Your task to perform on an android device: make emails show in primary in the gmail app Image 0: 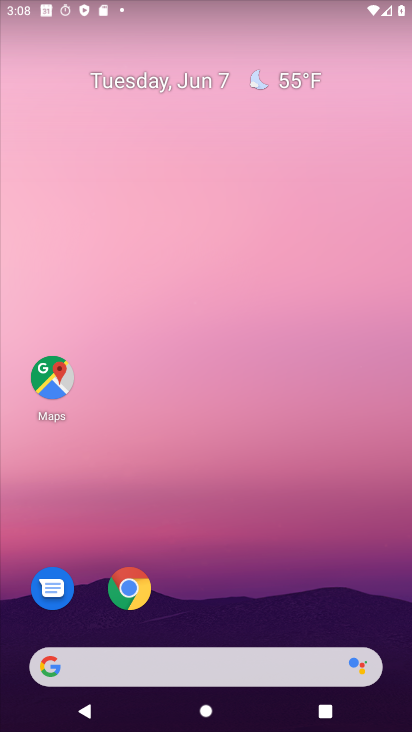
Step 0: drag from (216, 634) to (376, 16)
Your task to perform on an android device: make emails show in primary in the gmail app Image 1: 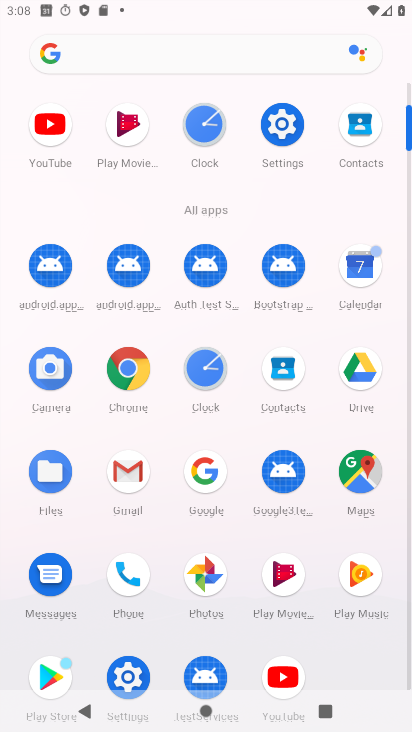
Step 1: click (131, 470)
Your task to perform on an android device: make emails show in primary in the gmail app Image 2: 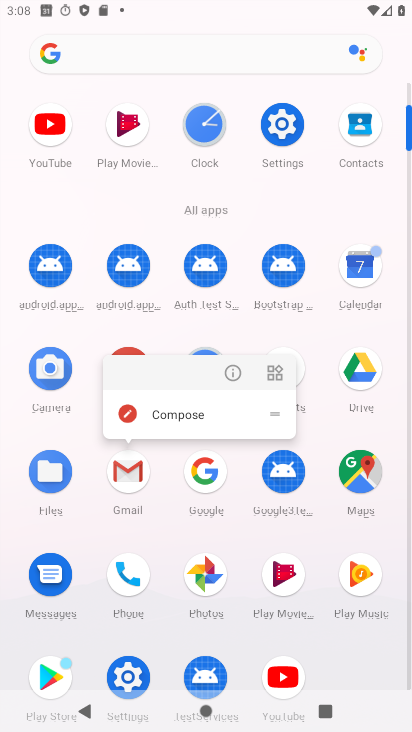
Step 2: click (75, 339)
Your task to perform on an android device: make emails show in primary in the gmail app Image 3: 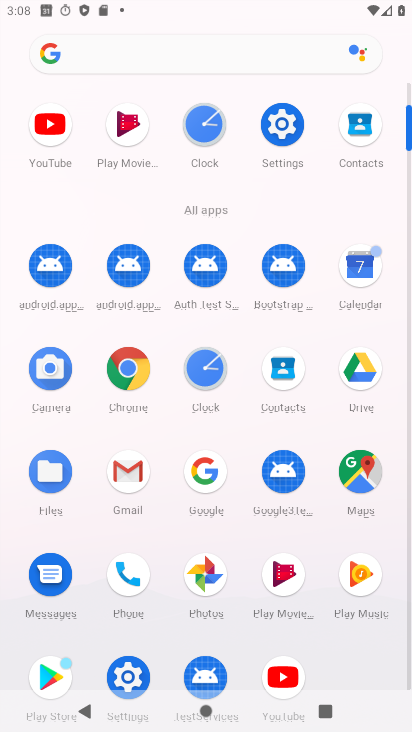
Step 3: click (128, 460)
Your task to perform on an android device: make emails show in primary in the gmail app Image 4: 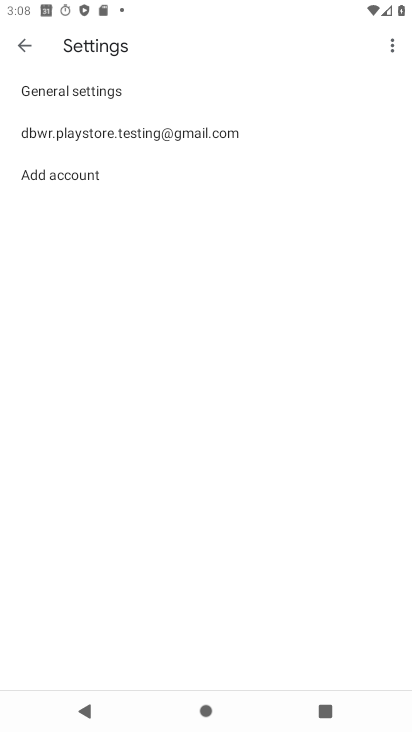
Step 4: click (108, 142)
Your task to perform on an android device: make emails show in primary in the gmail app Image 5: 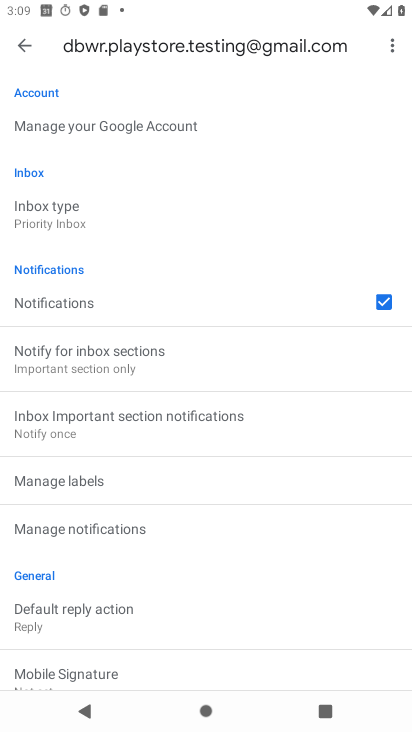
Step 5: task complete